Your task to perform on an android device: Go to eBay Image 0: 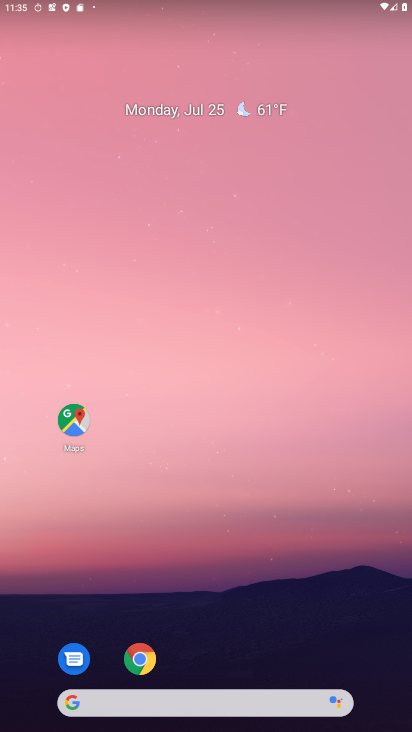
Step 0: click (112, 701)
Your task to perform on an android device: Go to eBay Image 1: 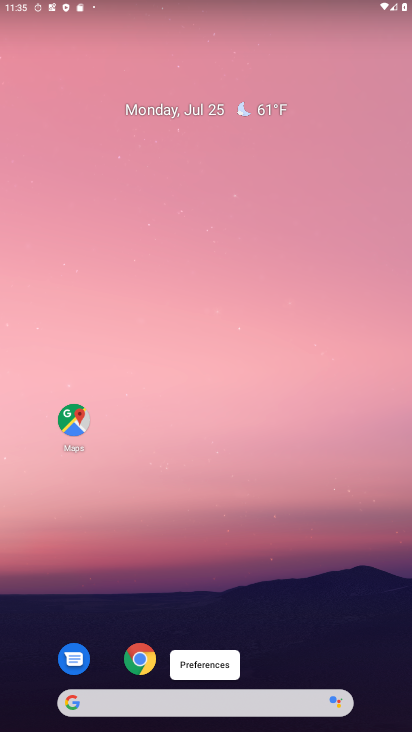
Step 1: click (122, 702)
Your task to perform on an android device: Go to eBay Image 2: 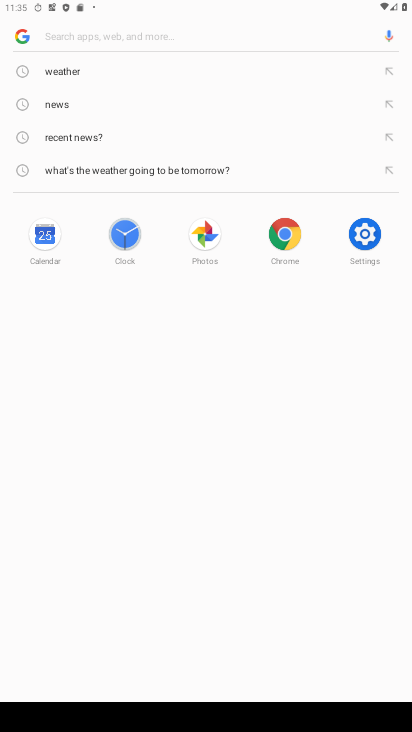
Step 2: type "eBay"
Your task to perform on an android device: Go to eBay Image 3: 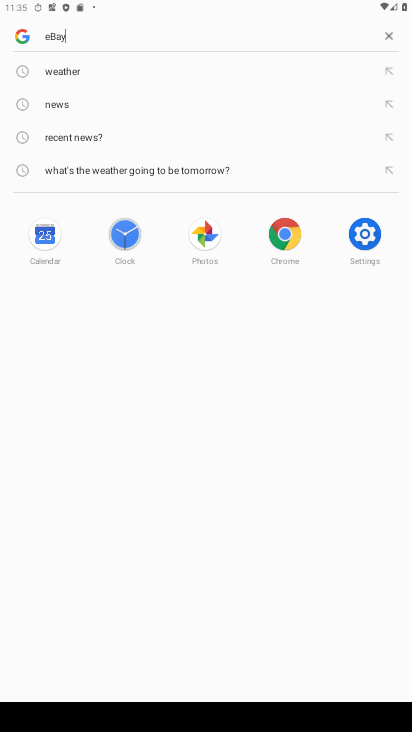
Step 3: type ""
Your task to perform on an android device: Go to eBay Image 4: 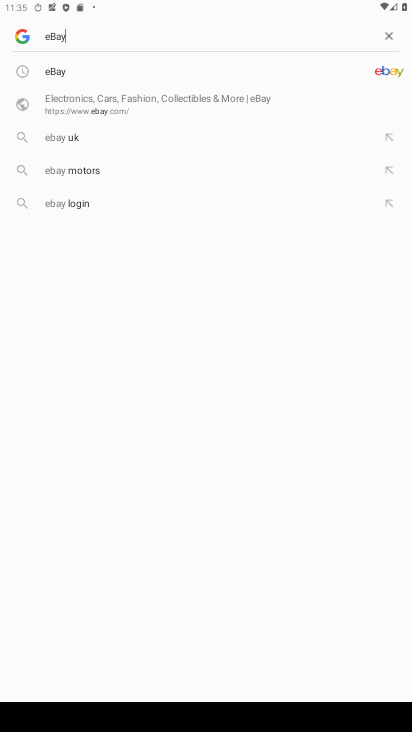
Step 4: click (64, 65)
Your task to perform on an android device: Go to eBay Image 5: 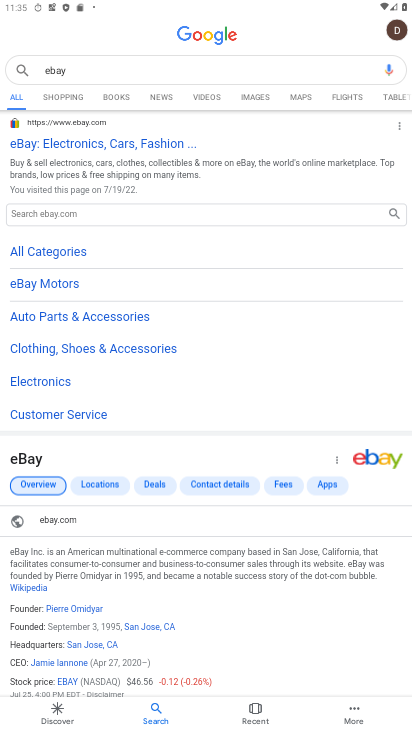
Step 5: task complete